Your task to perform on an android device: allow cookies in the chrome app Image 0: 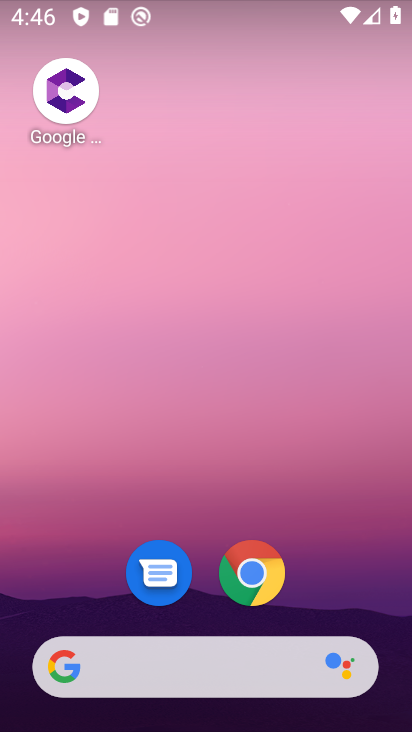
Step 0: click (261, 570)
Your task to perform on an android device: allow cookies in the chrome app Image 1: 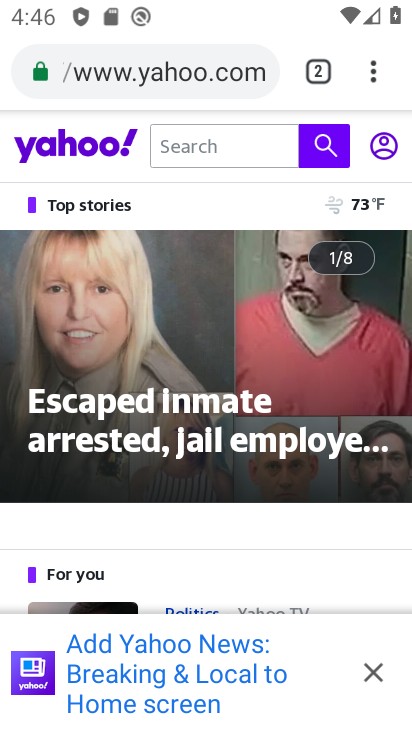
Step 1: drag from (371, 77) to (216, 568)
Your task to perform on an android device: allow cookies in the chrome app Image 2: 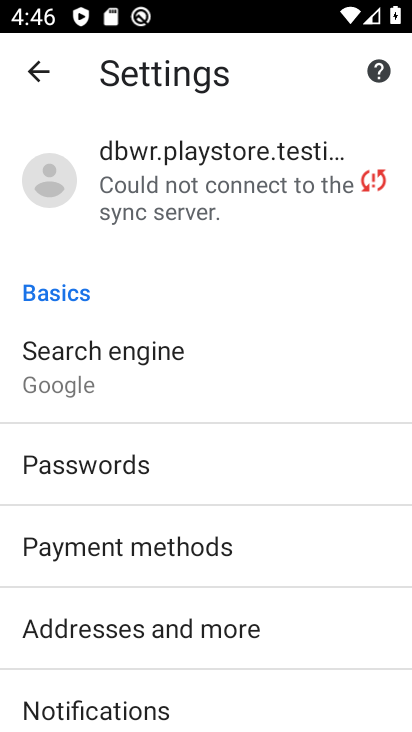
Step 2: drag from (197, 675) to (313, 248)
Your task to perform on an android device: allow cookies in the chrome app Image 3: 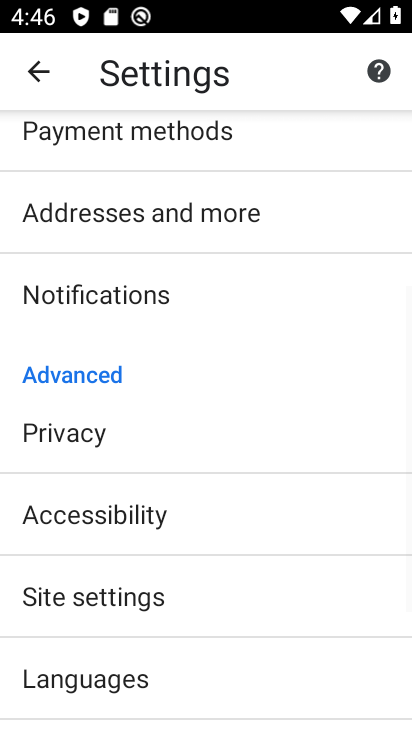
Step 3: drag from (161, 626) to (250, 389)
Your task to perform on an android device: allow cookies in the chrome app Image 4: 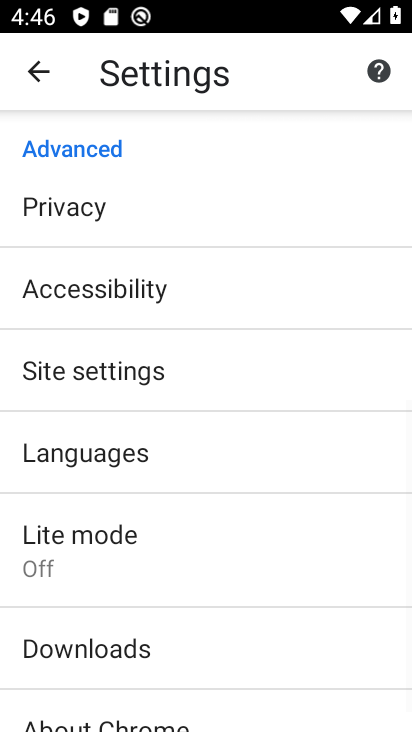
Step 4: click (185, 385)
Your task to perform on an android device: allow cookies in the chrome app Image 5: 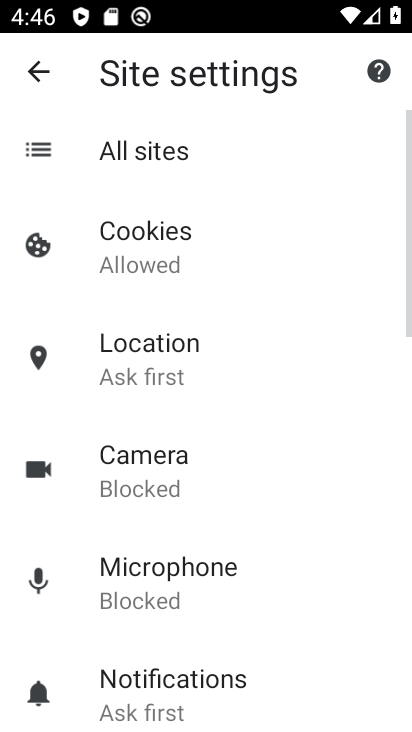
Step 5: drag from (186, 666) to (244, 663)
Your task to perform on an android device: allow cookies in the chrome app Image 6: 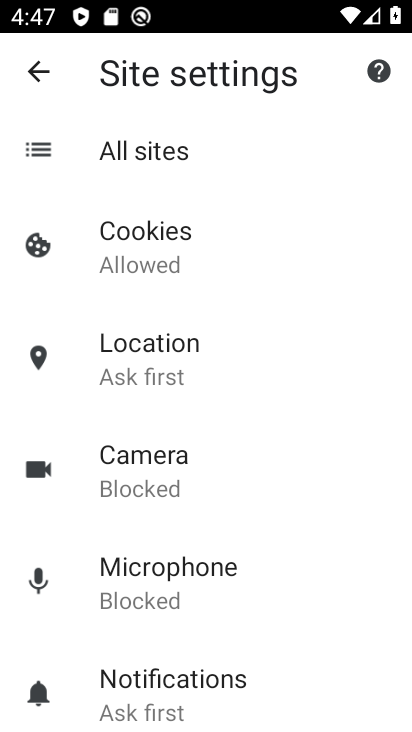
Step 6: click (220, 256)
Your task to perform on an android device: allow cookies in the chrome app Image 7: 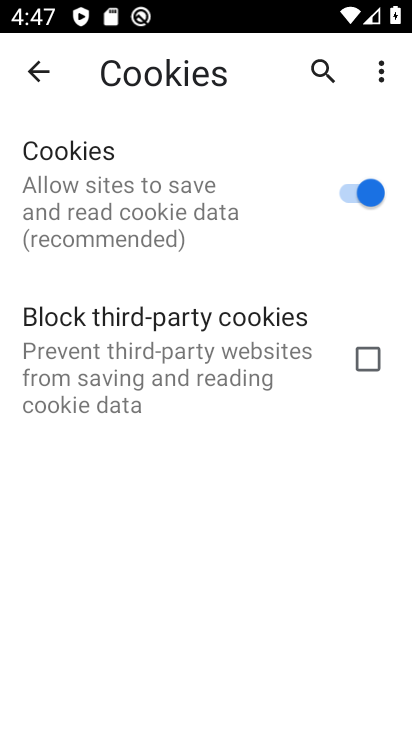
Step 7: task complete